Your task to perform on an android device: What is the recent news? Image 0: 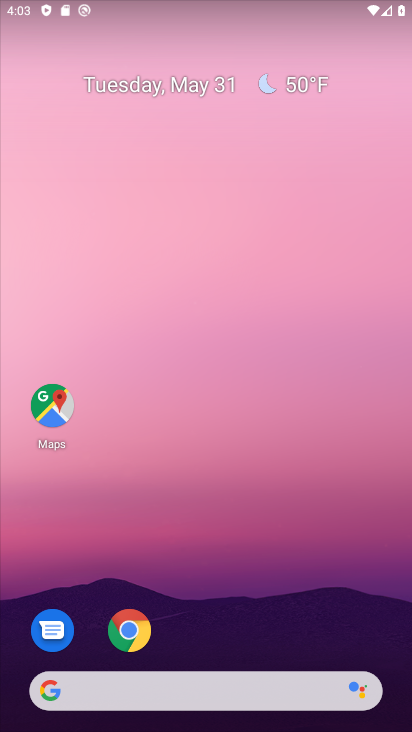
Step 0: drag from (303, 564) to (228, 20)
Your task to perform on an android device: What is the recent news? Image 1: 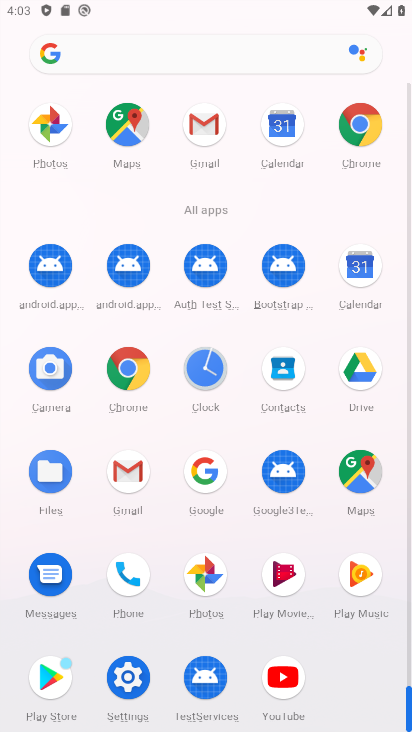
Step 1: drag from (1, 600) to (29, 180)
Your task to perform on an android device: What is the recent news? Image 2: 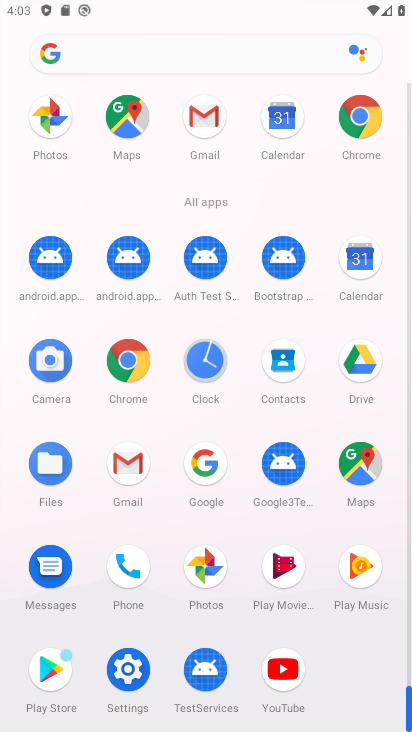
Step 2: click (126, 356)
Your task to perform on an android device: What is the recent news? Image 3: 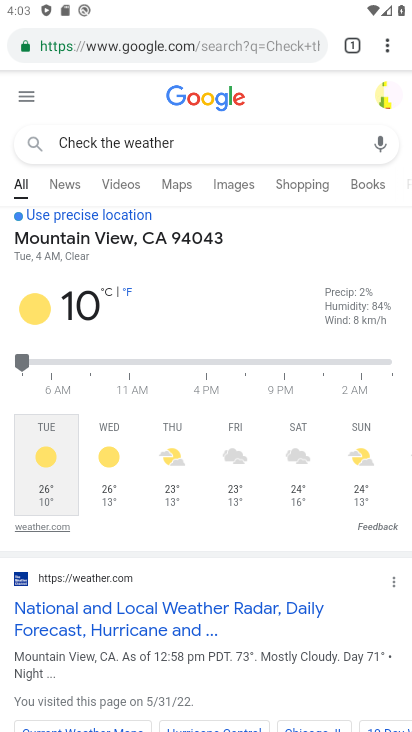
Step 3: click (177, 49)
Your task to perform on an android device: What is the recent news? Image 4: 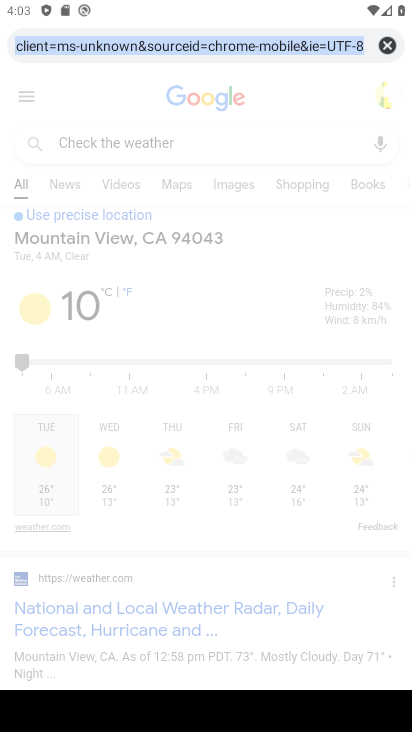
Step 4: click (385, 42)
Your task to perform on an android device: What is the recent news? Image 5: 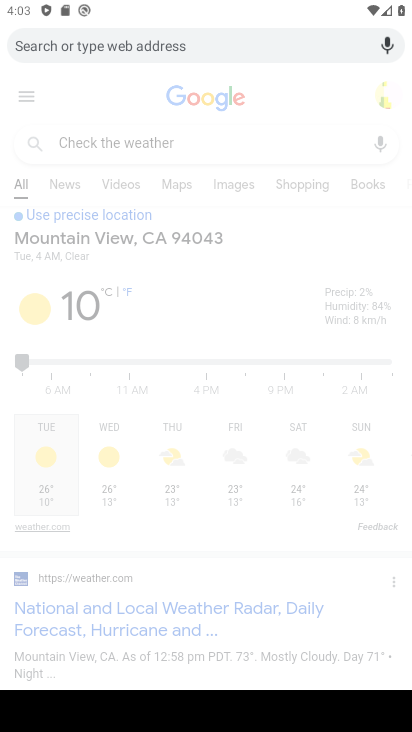
Step 5: type "What is the recent news?"
Your task to perform on an android device: What is the recent news? Image 6: 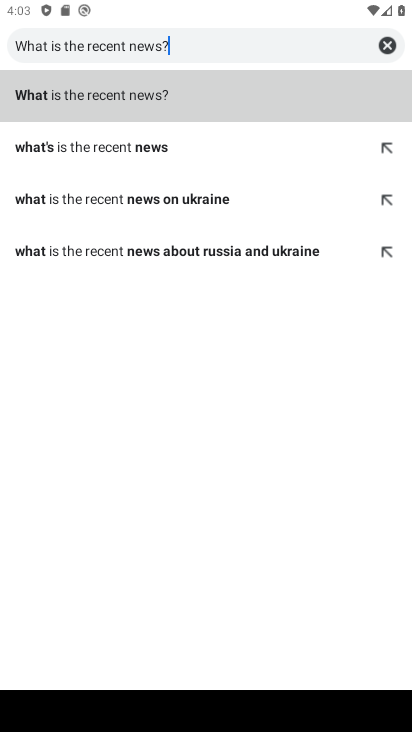
Step 6: click (162, 109)
Your task to perform on an android device: What is the recent news? Image 7: 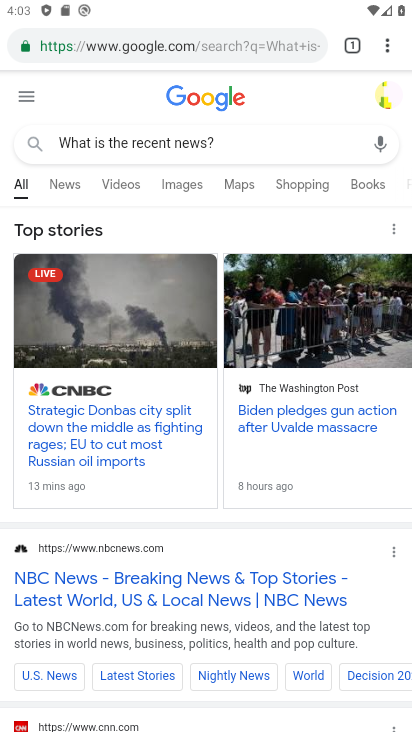
Step 7: task complete